Your task to perform on an android device: turn on the 24-hour format for clock Image 0: 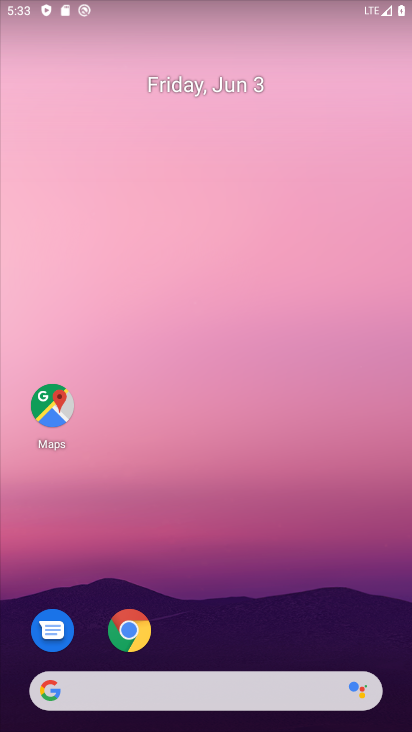
Step 0: drag from (192, 627) to (303, 156)
Your task to perform on an android device: turn on the 24-hour format for clock Image 1: 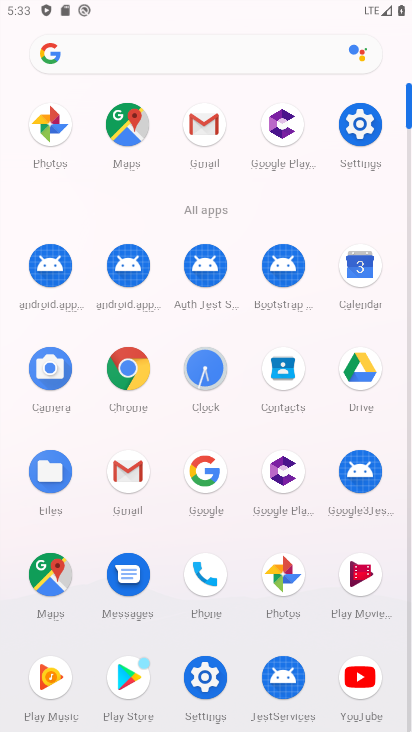
Step 1: click (193, 363)
Your task to perform on an android device: turn on the 24-hour format for clock Image 2: 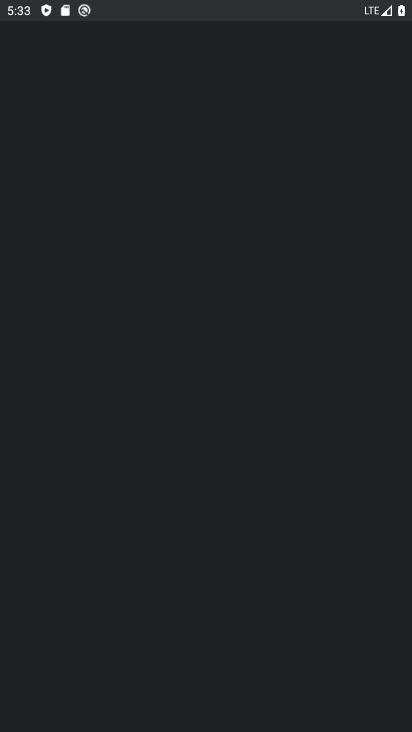
Step 2: click (193, 363)
Your task to perform on an android device: turn on the 24-hour format for clock Image 3: 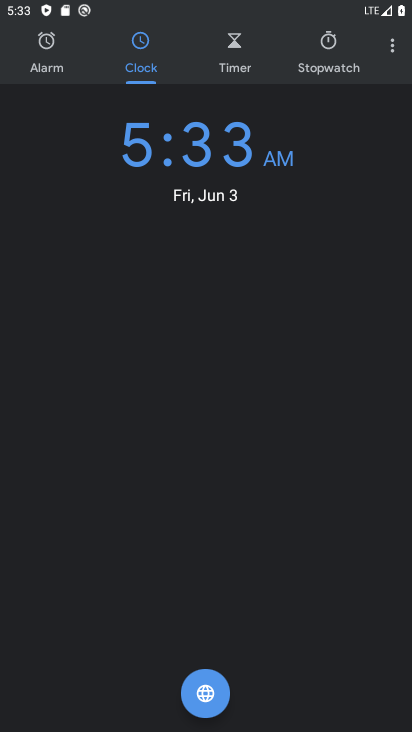
Step 3: click (401, 35)
Your task to perform on an android device: turn on the 24-hour format for clock Image 4: 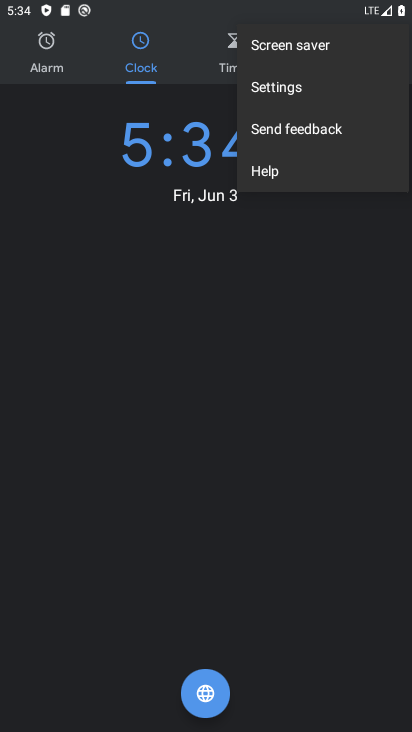
Step 4: click (321, 92)
Your task to perform on an android device: turn on the 24-hour format for clock Image 5: 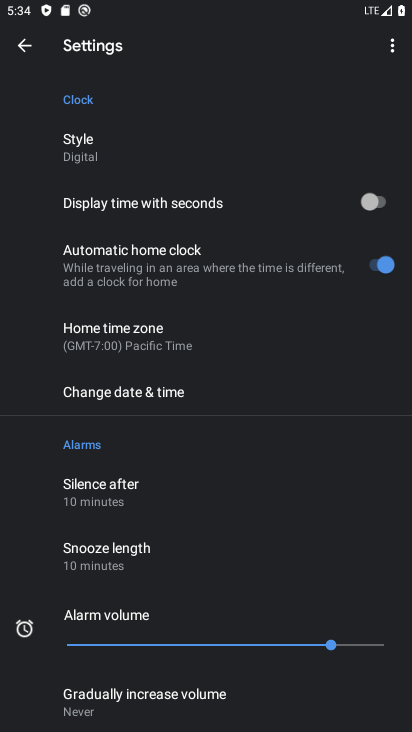
Step 5: click (170, 393)
Your task to perform on an android device: turn on the 24-hour format for clock Image 6: 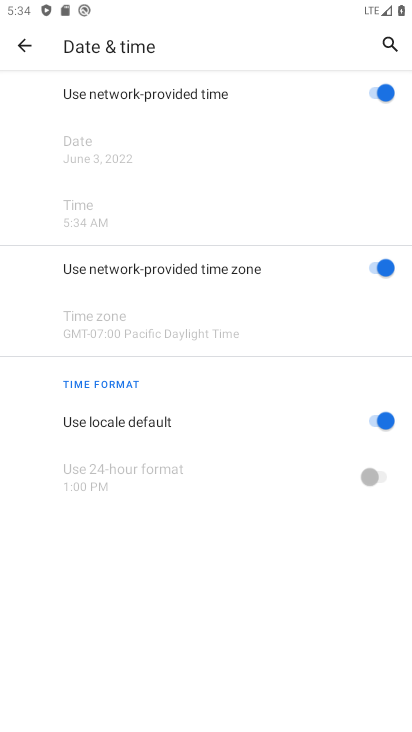
Step 6: click (386, 423)
Your task to perform on an android device: turn on the 24-hour format for clock Image 7: 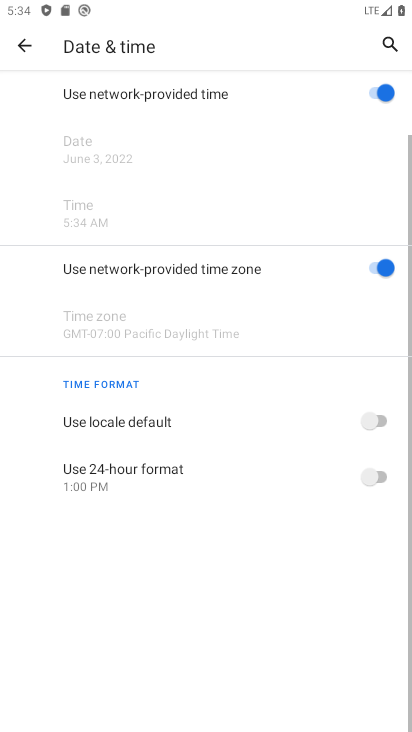
Step 7: click (389, 482)
Your task to perform on an android device: turn on the 24-hour format for clock Image 8: 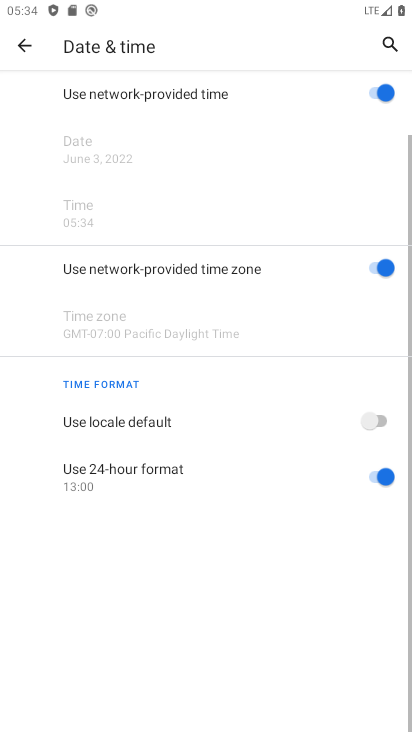
Step 8: task complete